Your task to perform on an android device: Add jbl charge 4 to the cart on target.com Image 0: 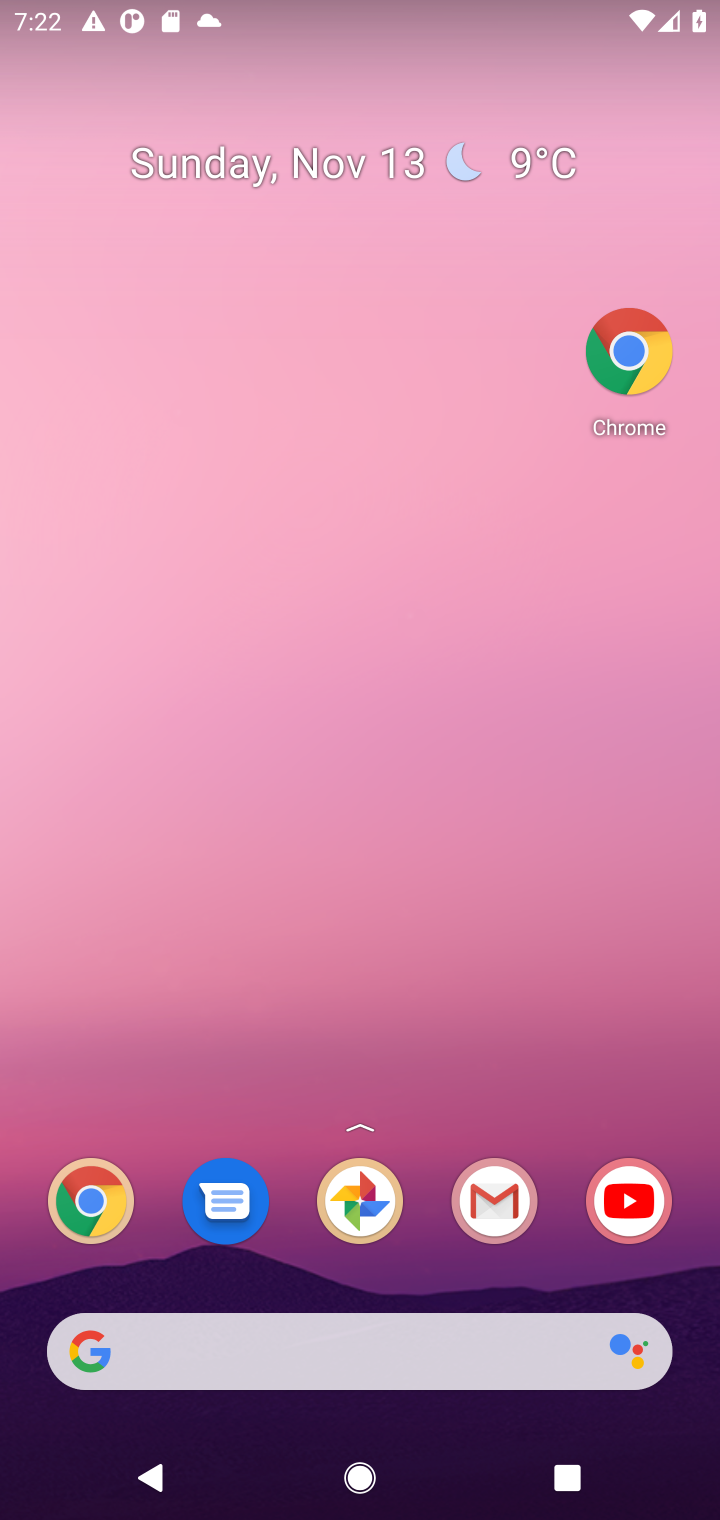
Step 0: drag from (381, 1130) to (306, 177)
Your task to perform on an android device: Add jbl charge 4 to the cart on target.com Image 1: 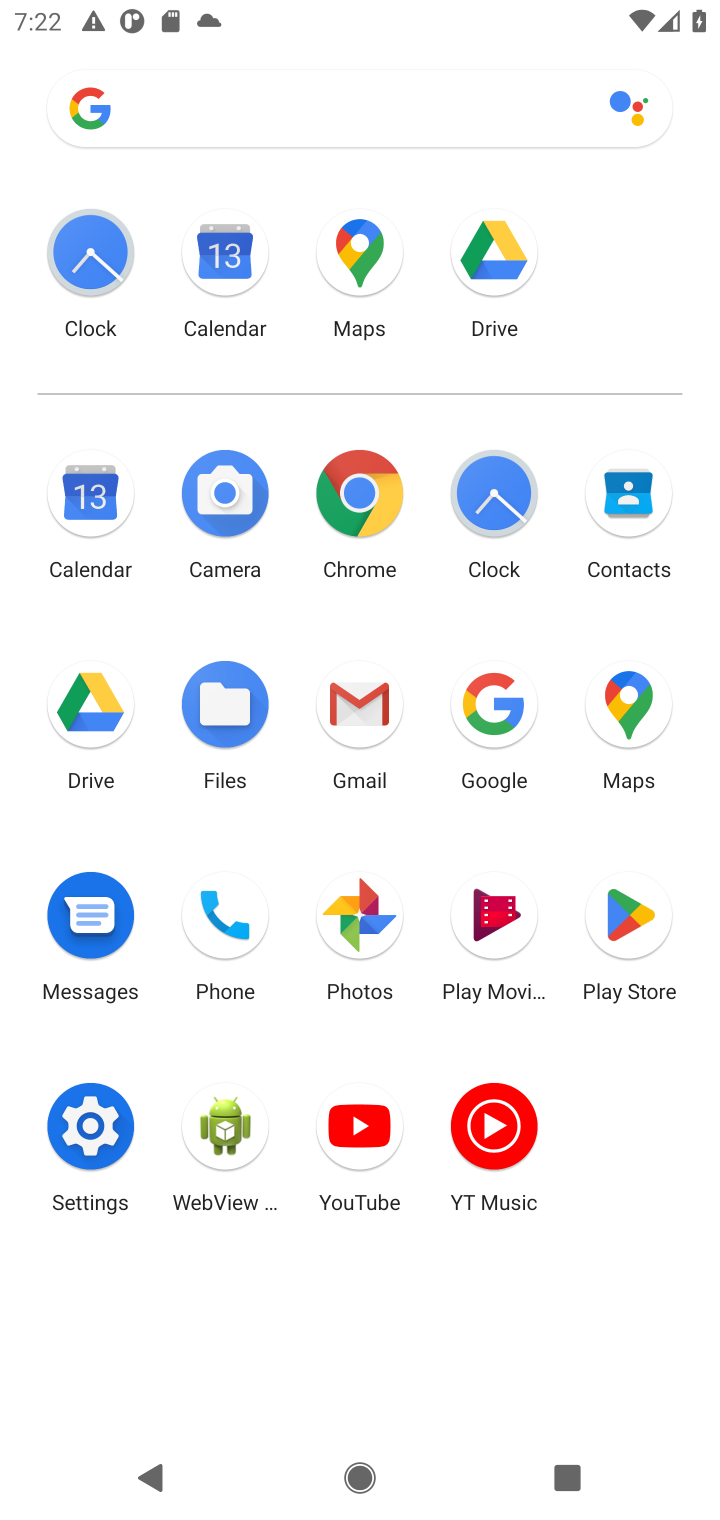
Step 1: click (370, 482)
Your task to perform on an android device: Add jbl charge 4 to the cart on target.com Image 2: 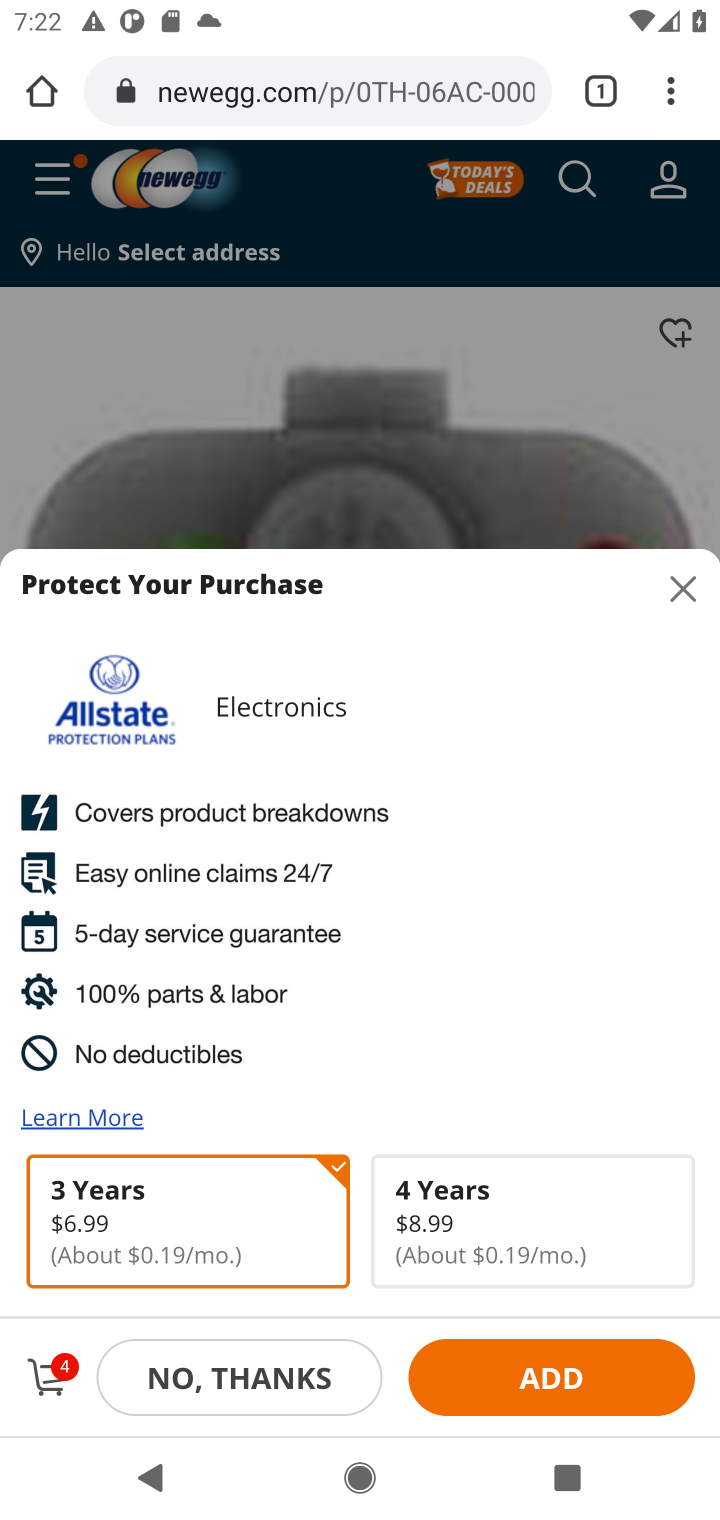
Step 2: click (348, 74)
Your task to perform on an android device: Add jbl charge 4 to the cart on target.com Image 3: 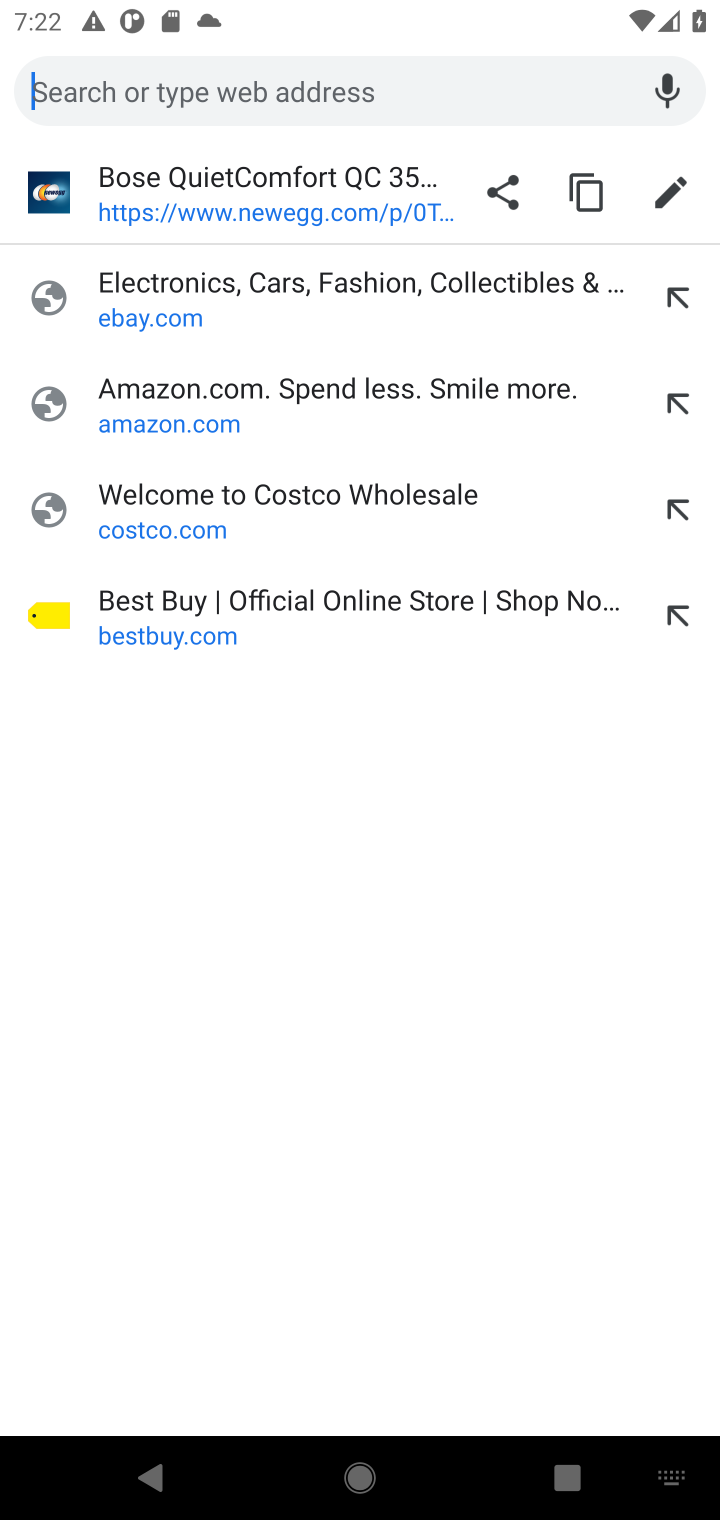
Step 3: type "target.com"
Your task to perform on an android device: Add jbl charge 4 to the cart on target.com Image 4: 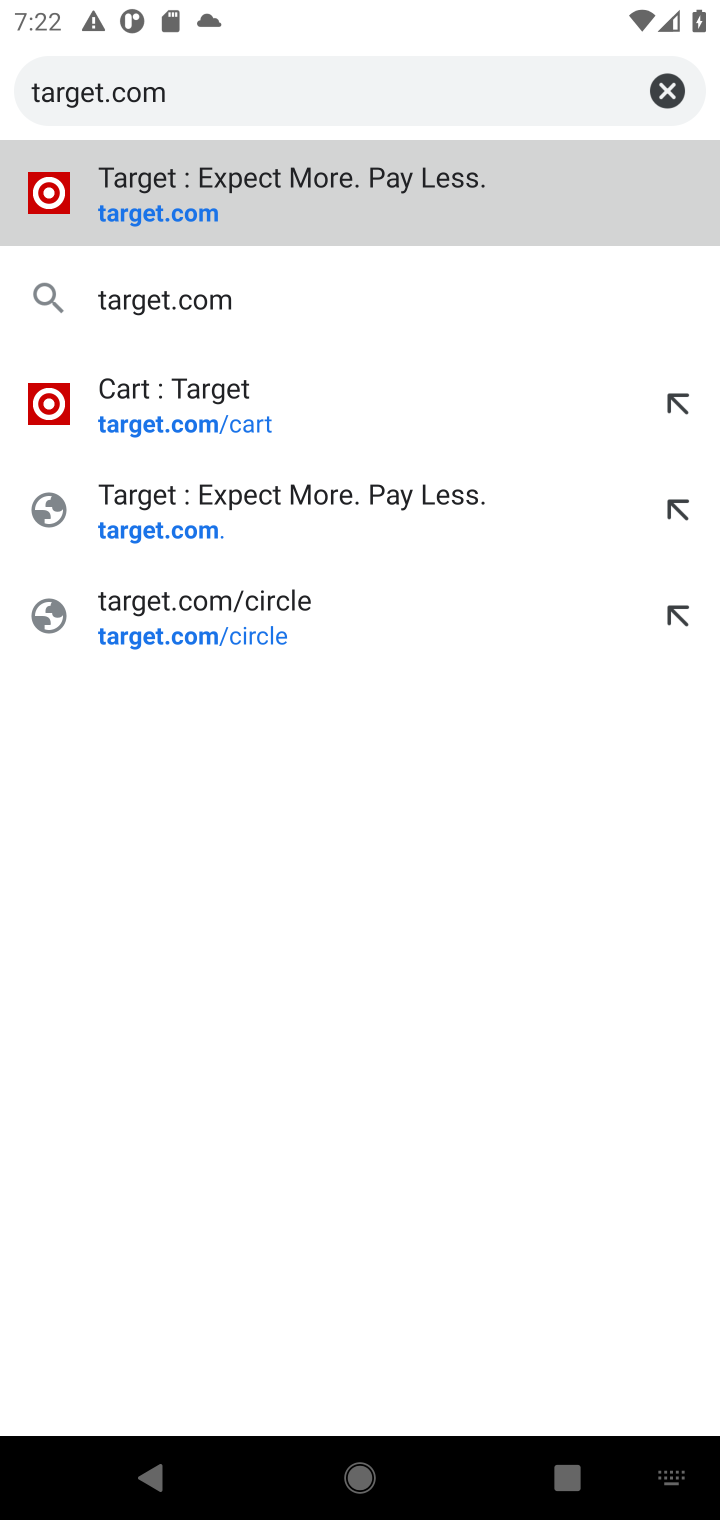
Step 4: press enter
Your task to perform on an android device: Add jbl charge 4 to the cart on target.com Image 5: 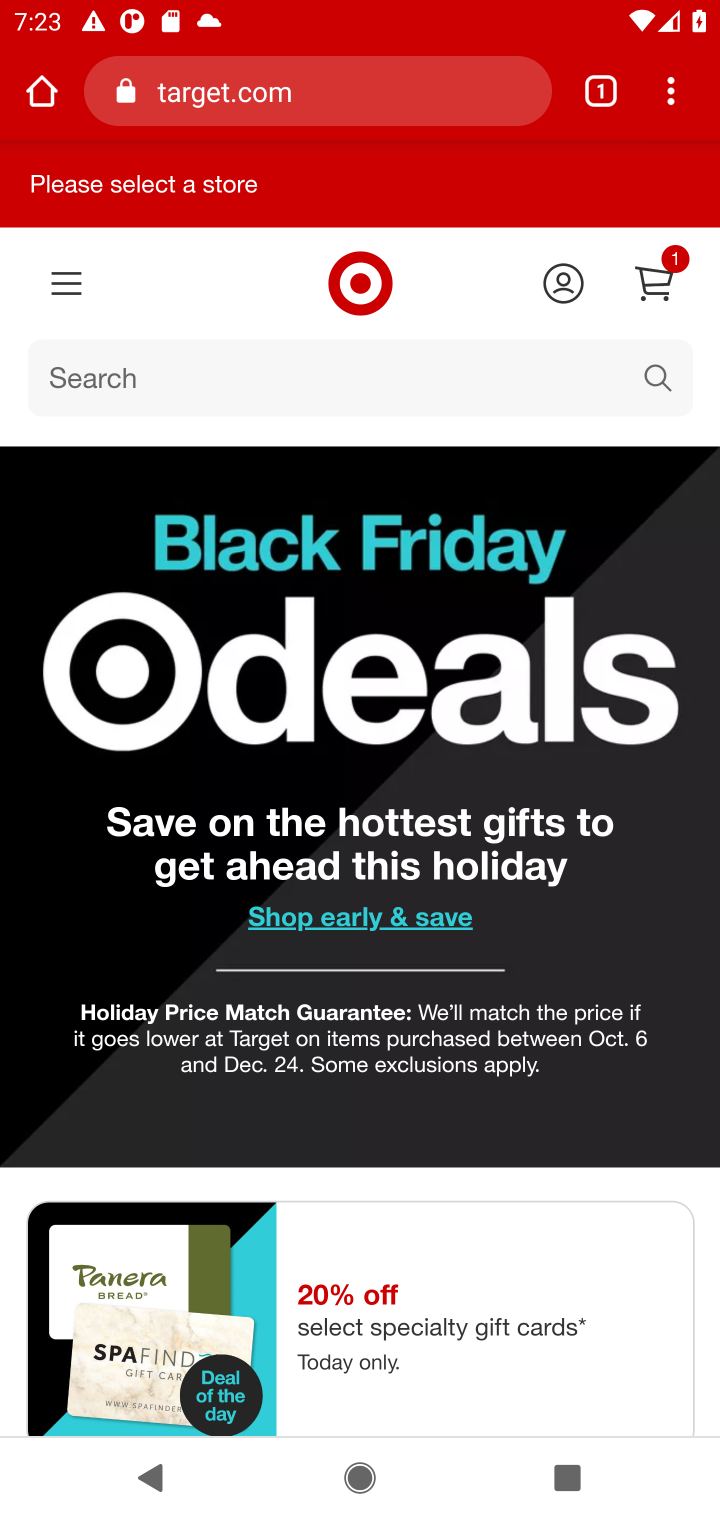
Step 5: click (429, 387)
Your task to perform on an android device: Add jbl charge 4 to the cart on target.com Image 6: 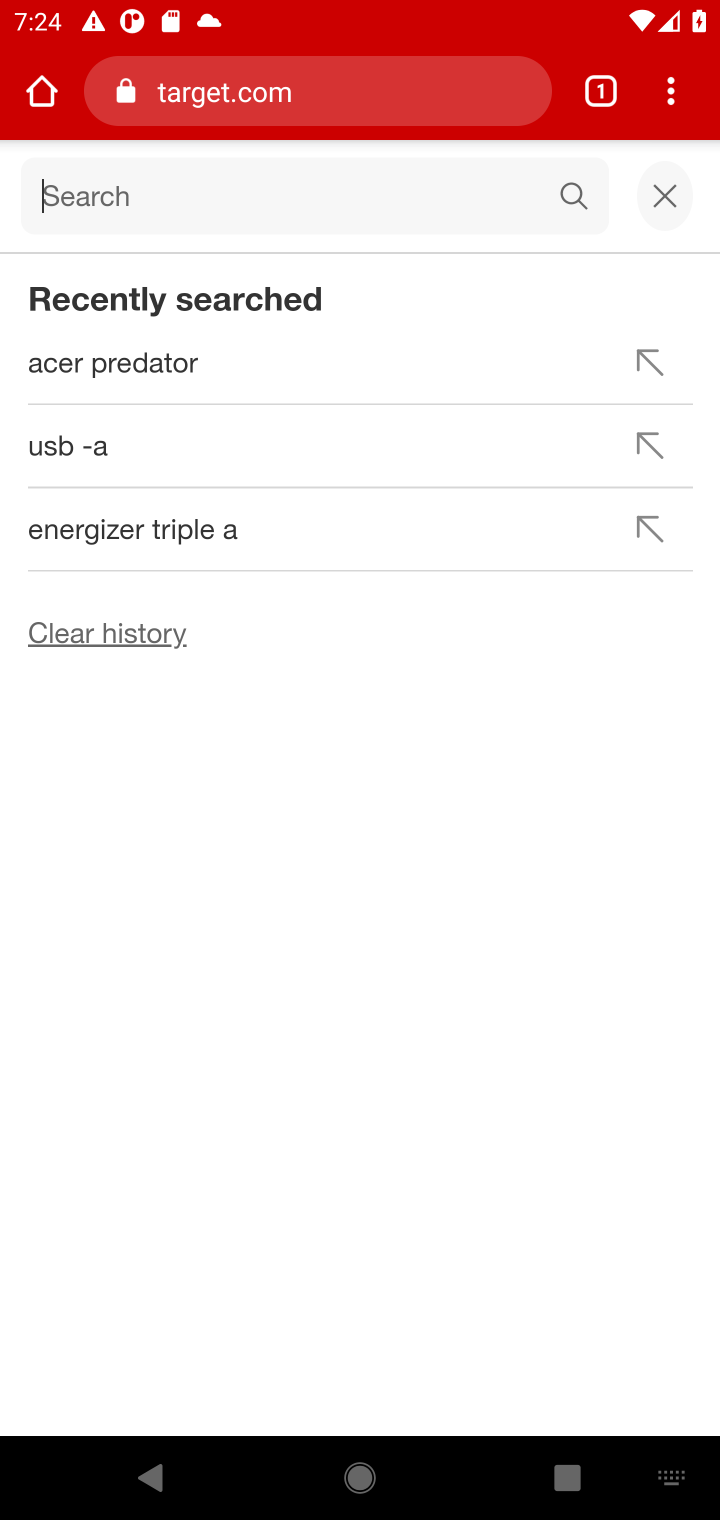
Step 6: click (429, 387)
Your task to perform on an android device: Add jbl charge 4 to the cart on target.com Image 7: 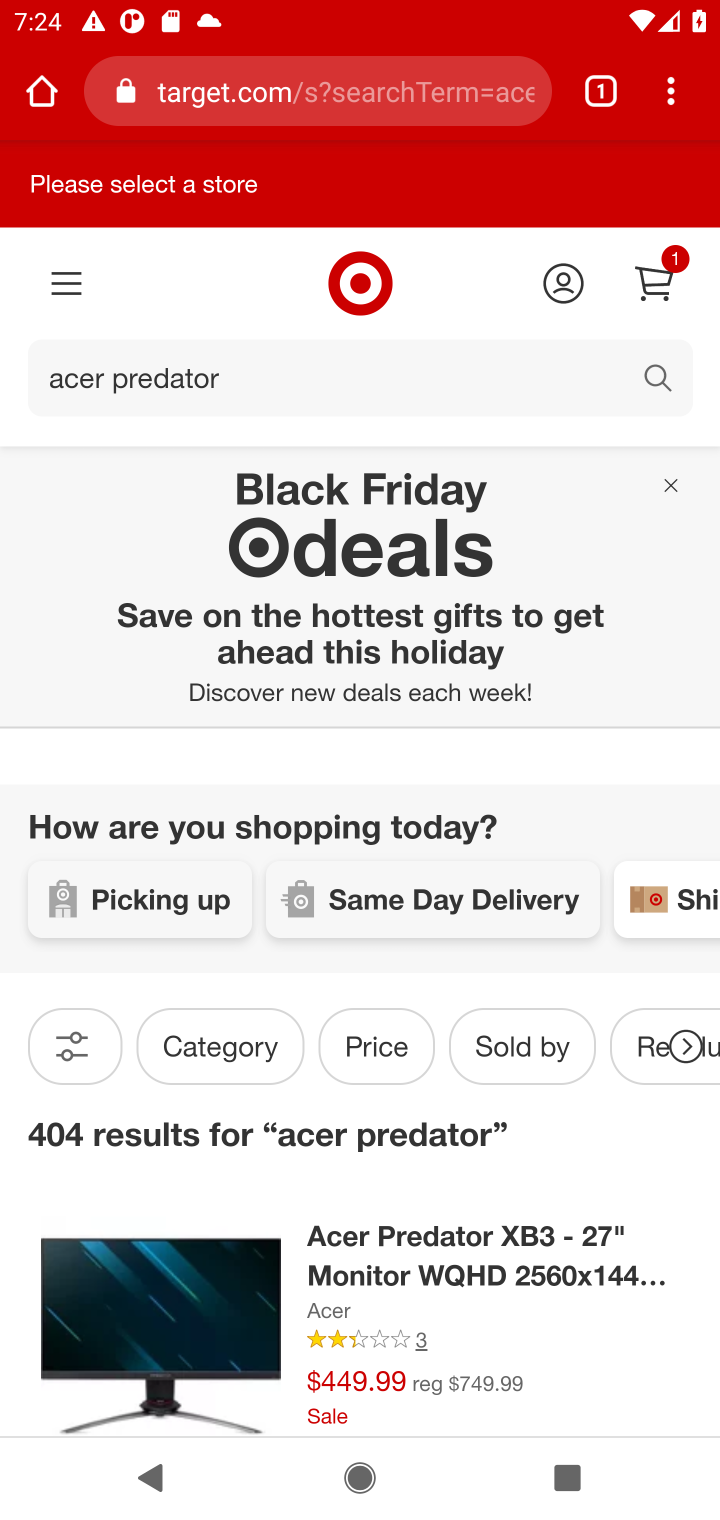
Step 7: click (419, 410)
Your task to perform on an android device: Add jbl charge 4 to the cart on target.com Image 8: 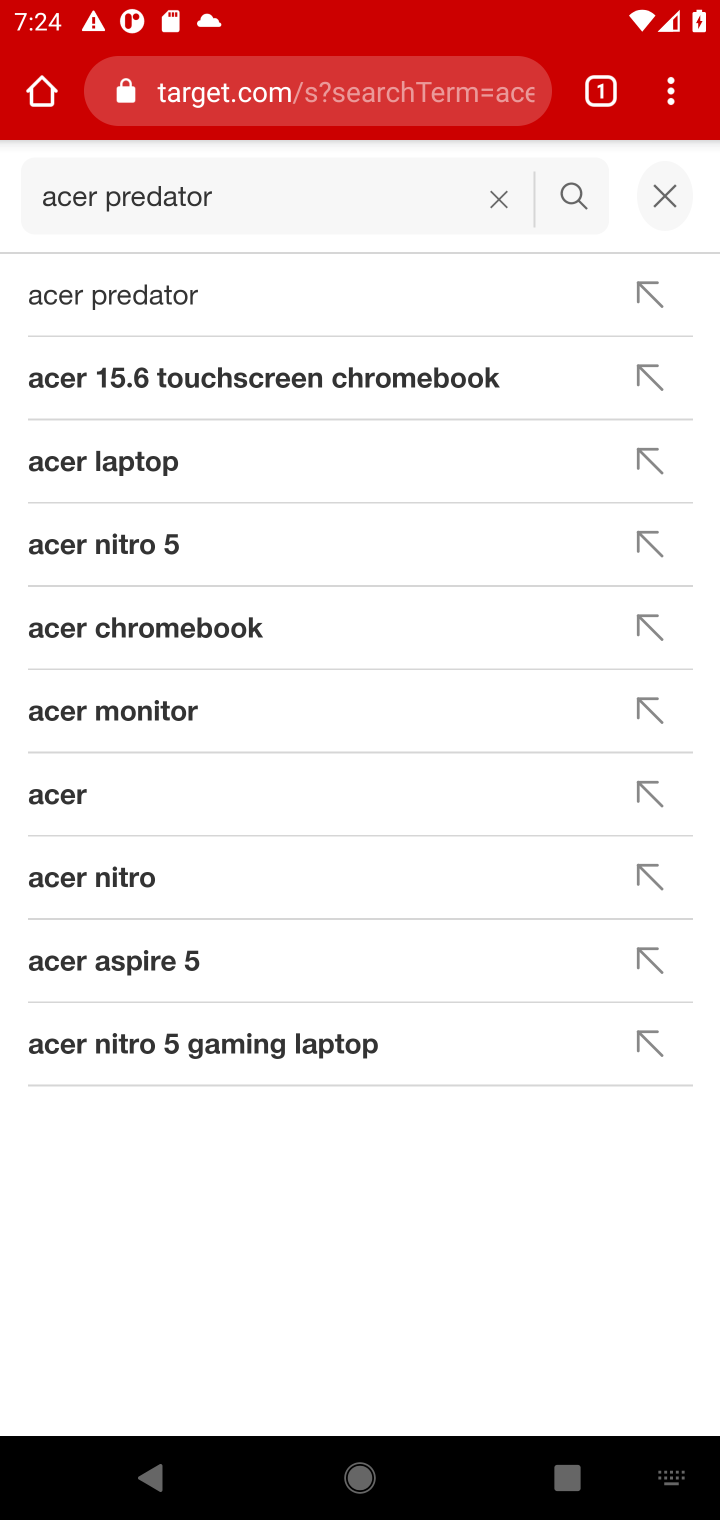
Step 8: click (509, 195)
Your task to perform on an android device: Add jbl charge 4 to the cart on target.com Image 9: 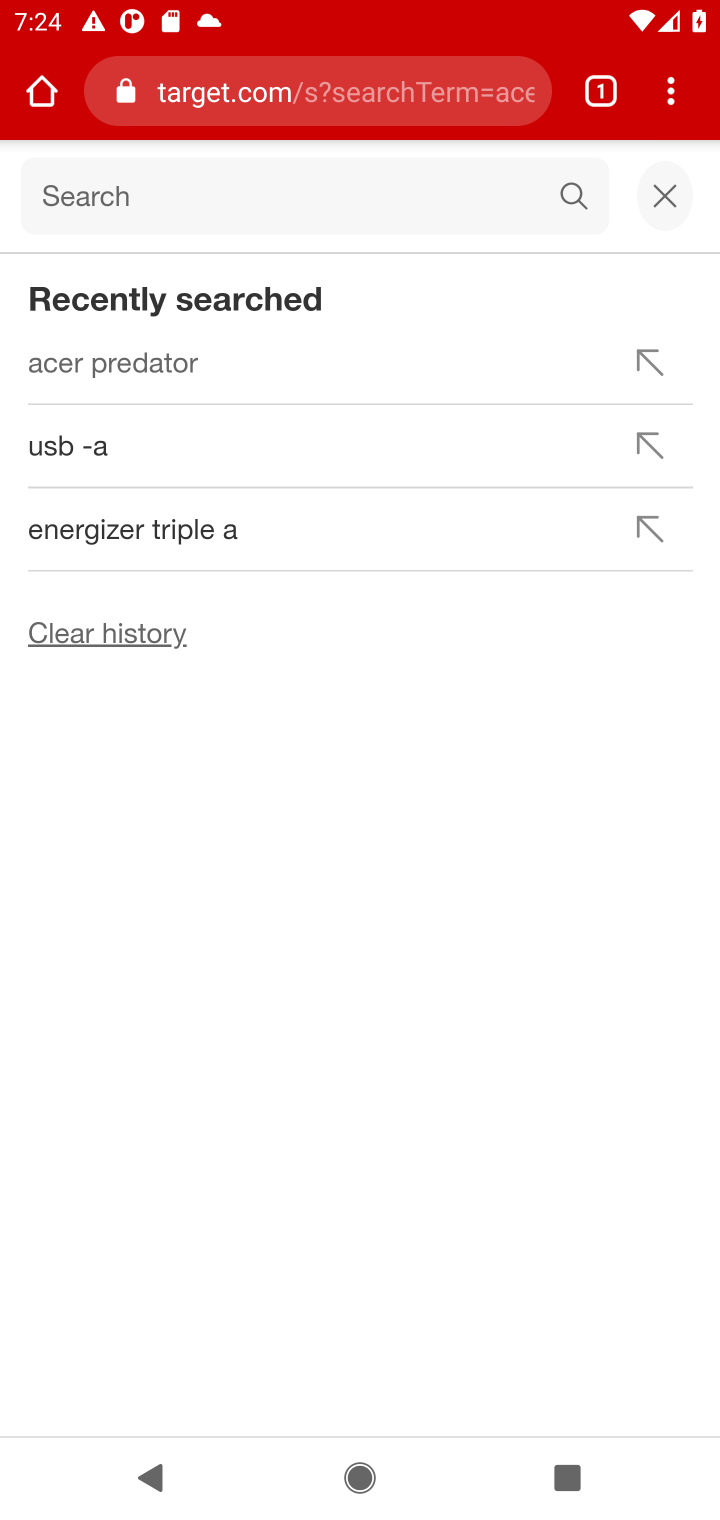
Step 9: type "jbl charge 4"
Your task to perform on an android device: Add jbl charge 4 to the cart on target.com Image 10: 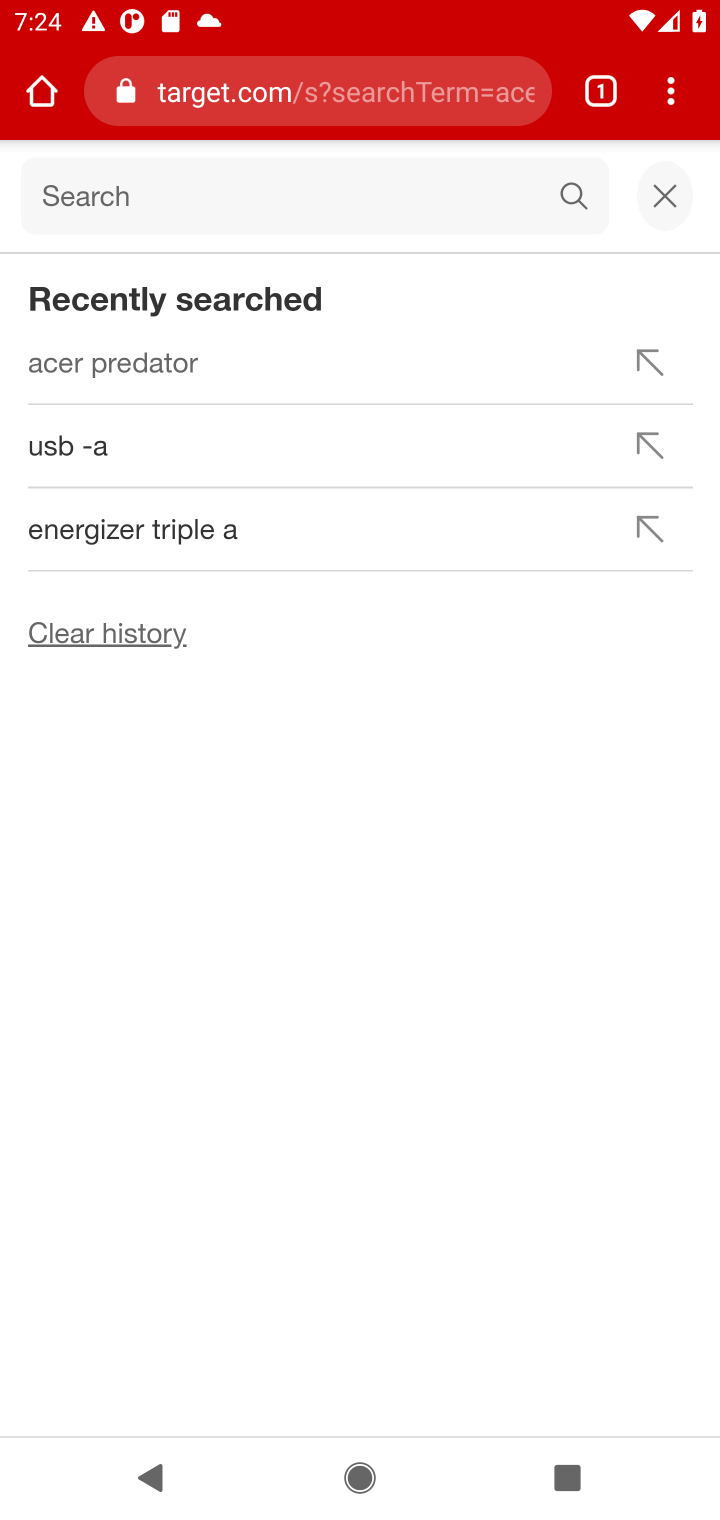
Step 10: press enter
Your task to perform on an android device: Add jbl charge 4 to the cart on target.com Image 11: 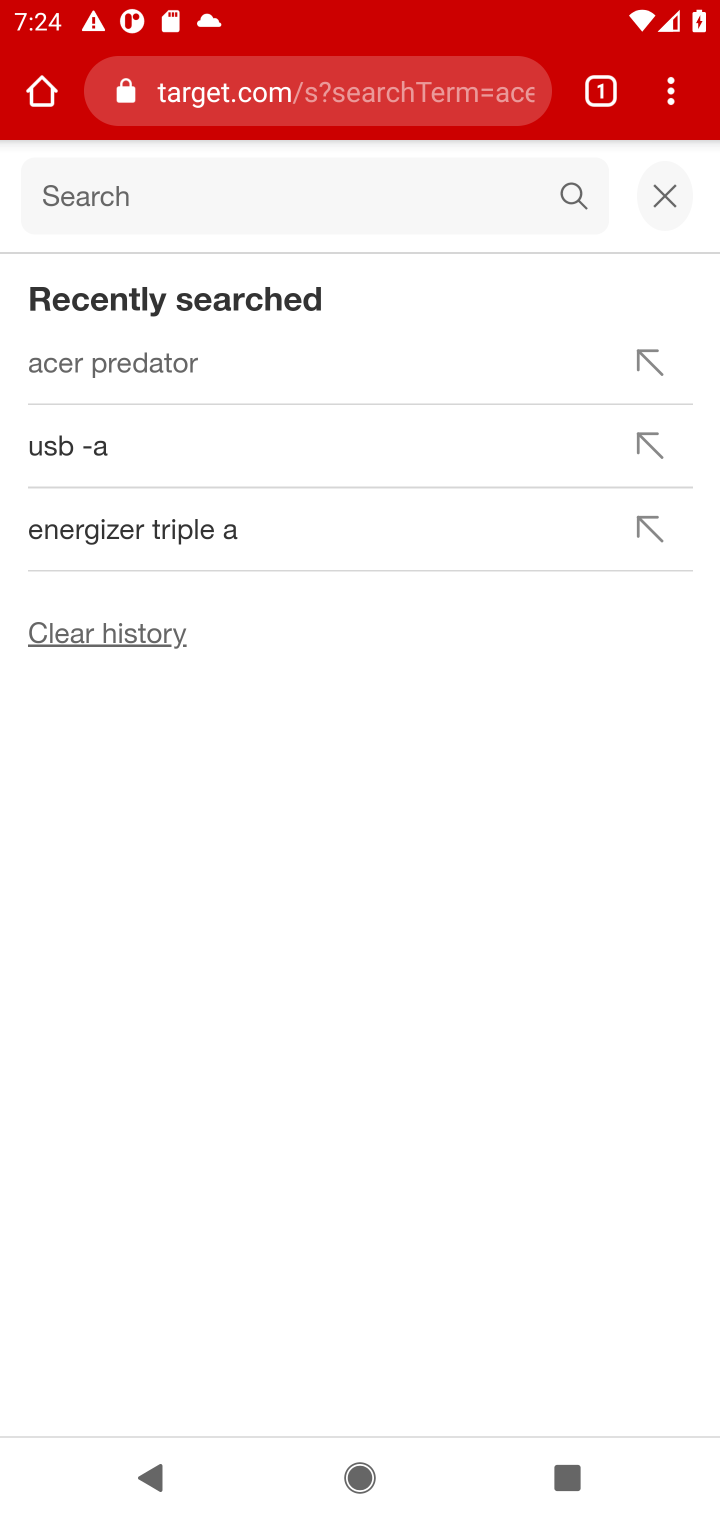
Step 11: click (385, 177)
Your task to perform on an android device: Add jbl charge 4 to the cart on target.com Image 12: 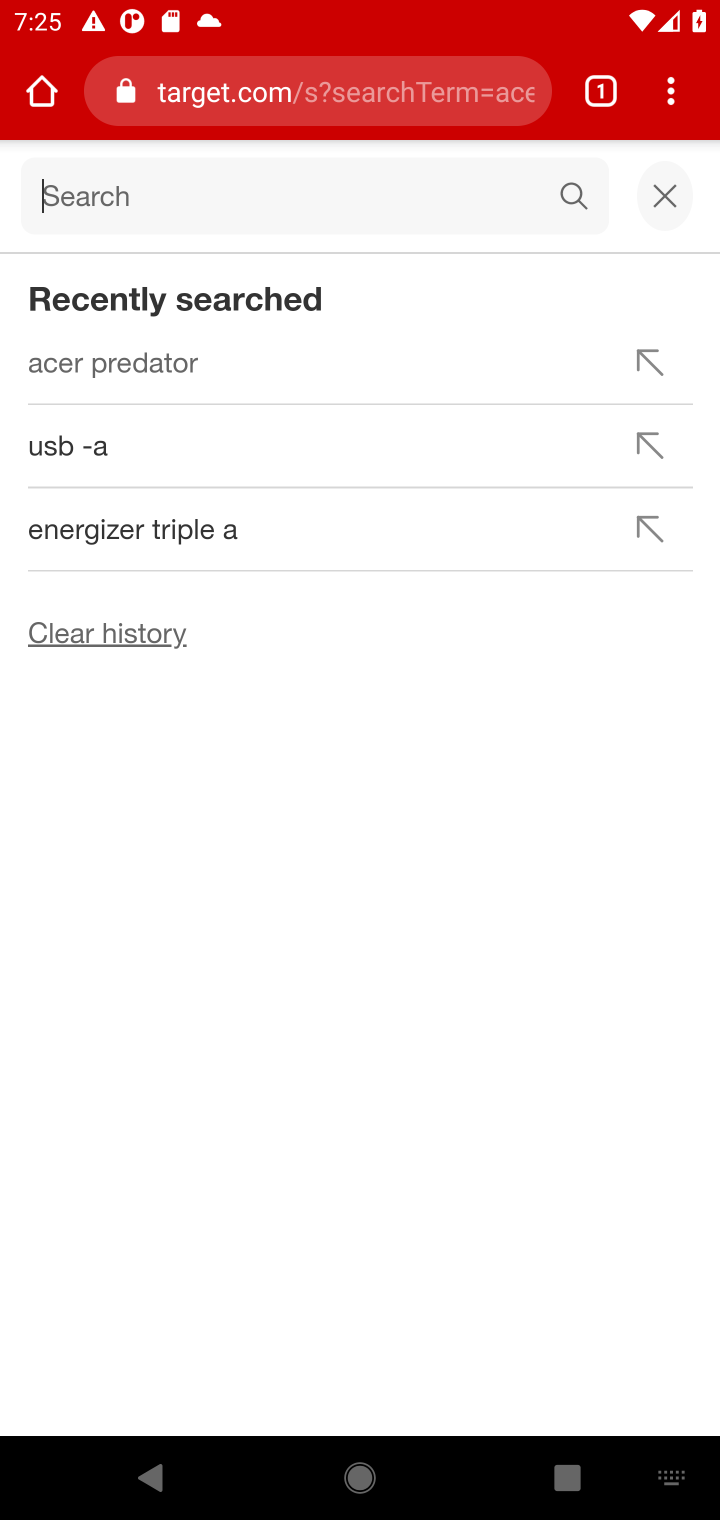
Step 12: type "jbl charge 4"
Your task to perform on an android device: Add jbl charge 4 to the cart on target.com Image 13: 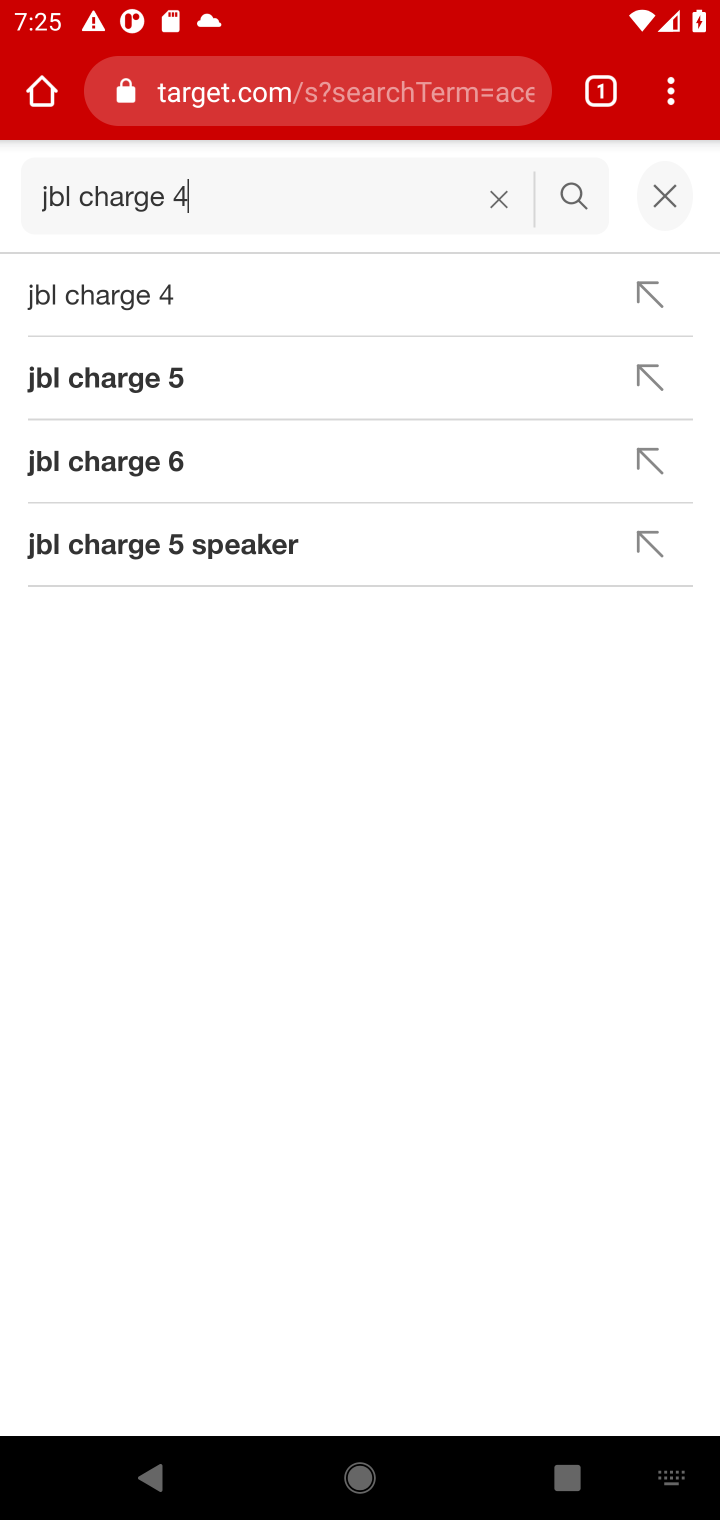
Step 13: press enter
Your task to perform on an android device: Add jbl charge 4 to the cart on target.com Image 14: 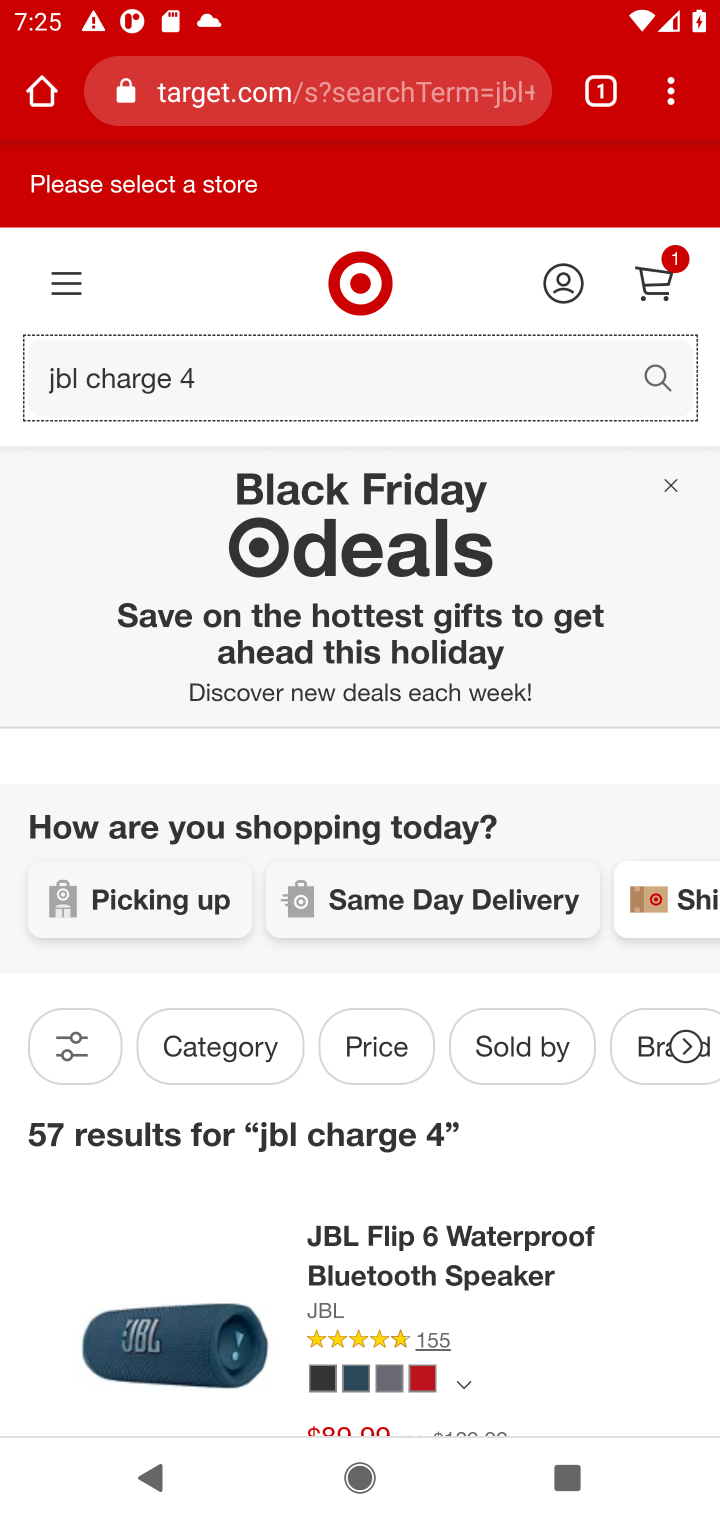
Step 14: task complete